Your task to perform on an android device: stop showing notifications on the lock screen Image 0: 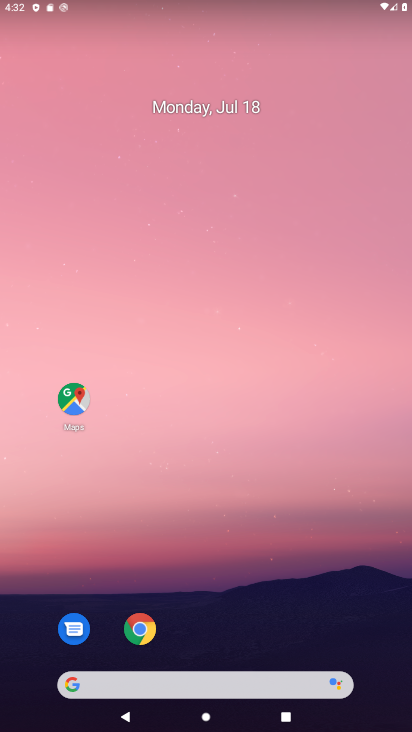
Step 0: drag from (282, 532) to (342, 28)
Your task to perform on an android device: stop showing notifications on the lock screen Image 1: 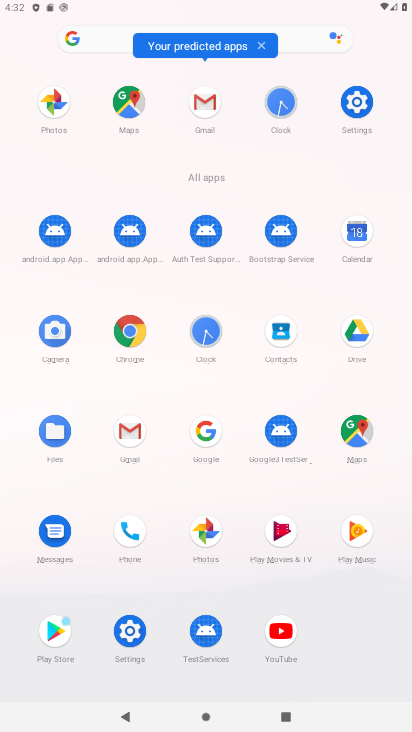
Step 1: click (136, 643)
Your task to perform on an android device: stop showing notifications on the lock screen Image 2: 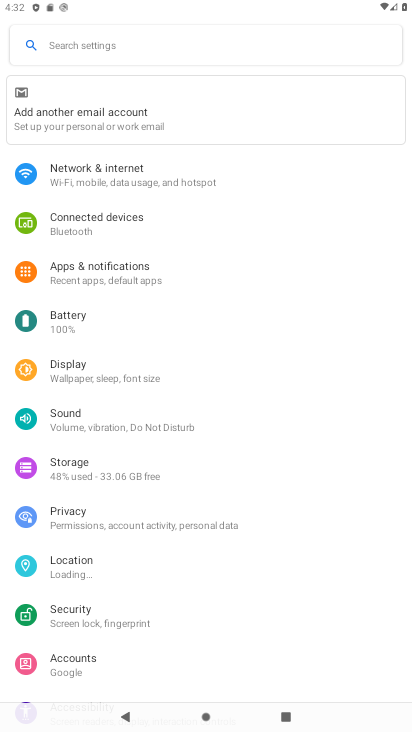
Step 2: click (150, 279)
Your task to perform on an android device: stop showing notifications on the lock screen Image 3: 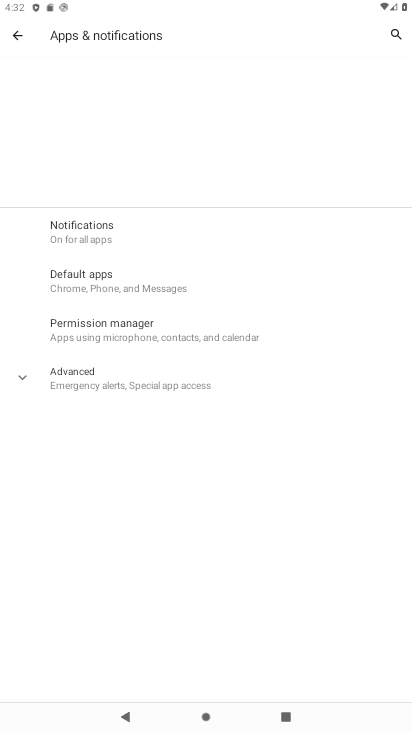
Step 3: click (149, 242)
Your task to perform on an android device: stop showing notifications on the lock screen Image 4: 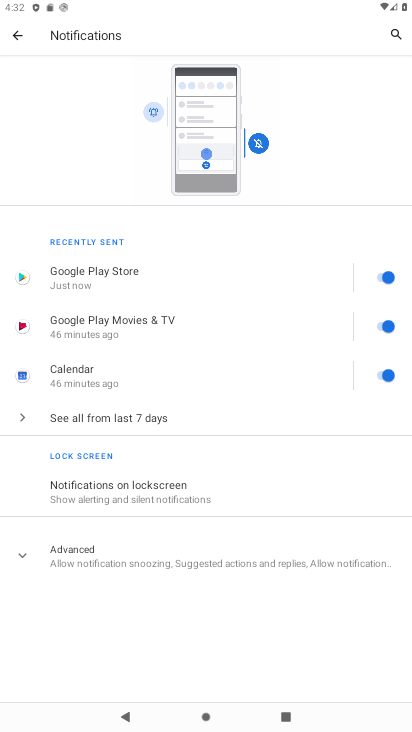
Step 4: click (240, 494)
Your task to perform on an android device: stop showing notifications on the lock screen Image 5: 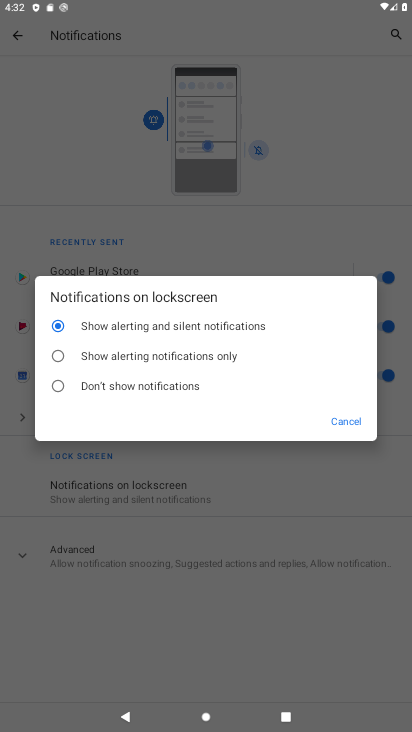
Step 5: click (183, 387)
Your task to perform on an android device: stop showing notifications on the lock screen Image 6: 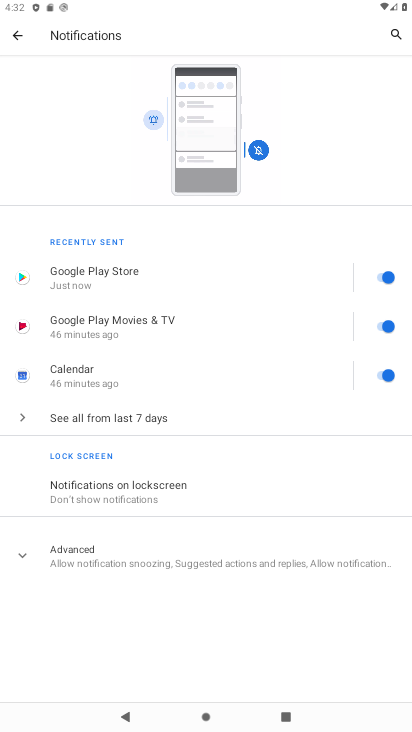
Step 6: task complete